Your task to perform on an android device: turn on data saver in the chrome app Image 0: 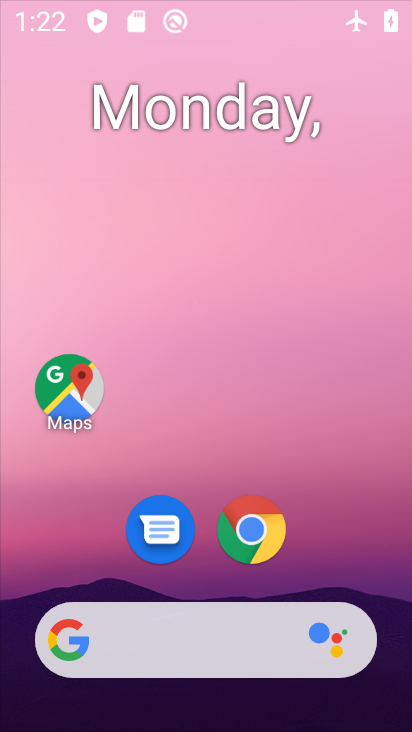
Step 0: click (329, 91)
Your task to perform on an android device: turn on data saver in the chrome app Image 1: 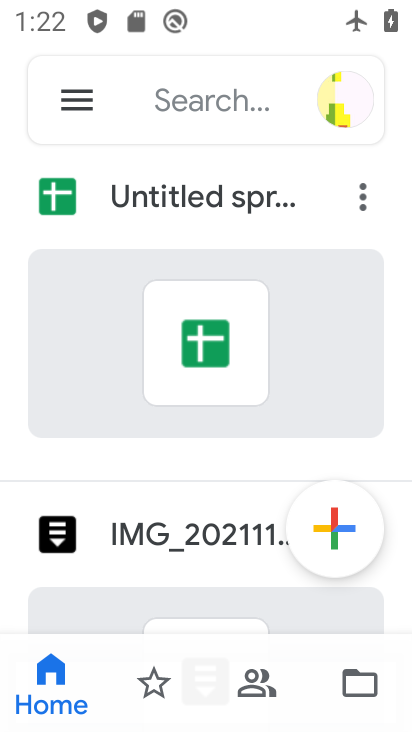
Step 1: press home button
Your task to perform on an android device: turn on data saver in the chrome app Image 2: 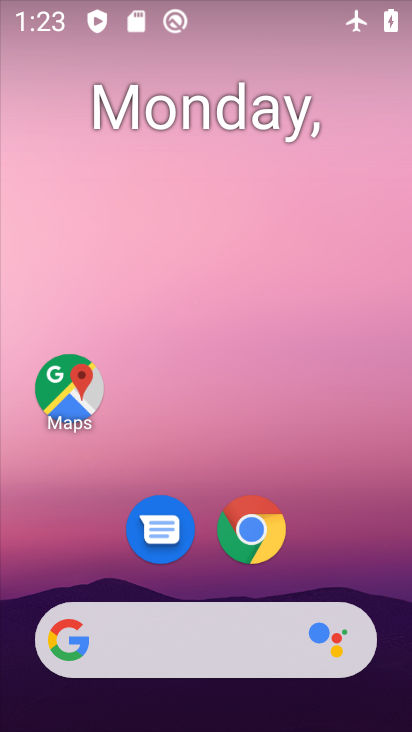
Step 2: drag from (369, 448) to (355, 106)
Your task to perform on an android device: turn on data saver in the chrome app Image 3: 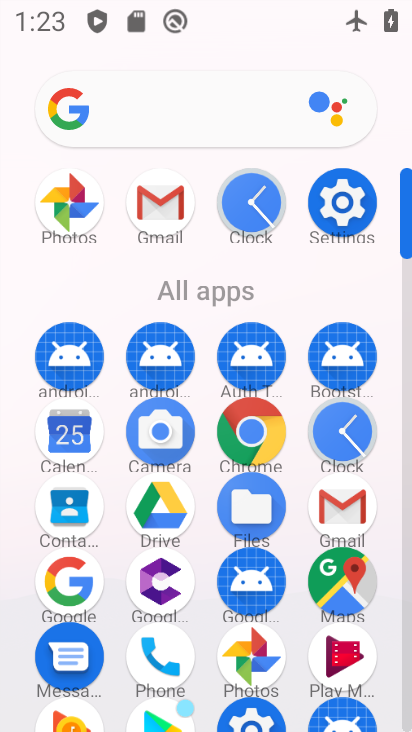
Step 3: click (264, 434)
Your task to perform on an android device: turn on data saver in the chrome app Image 4: 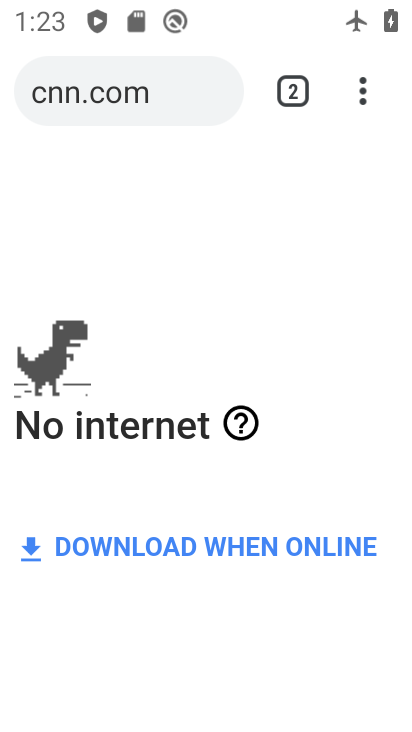
Step 4: drag from (358, 101) to (171, 561)
Your task to perform on an android device: turn on data saver in the chrome app Image 5: 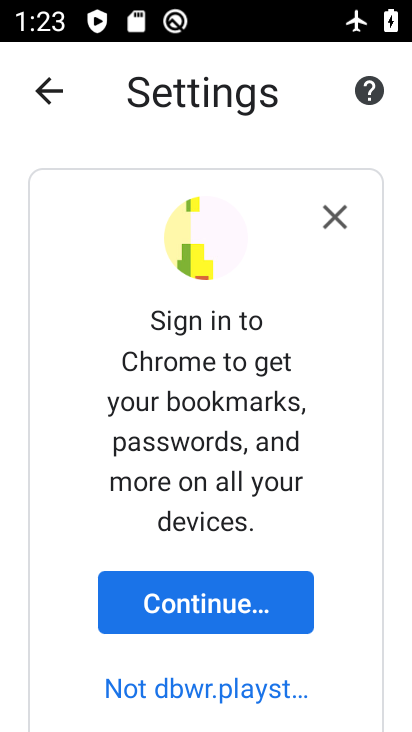
Step 5: click (222, 599)
Your task to perform on an android device: turn on data saver in the chrome app Image 6: 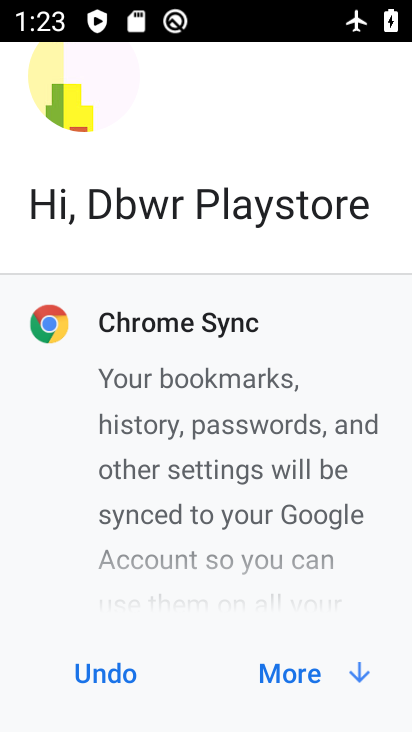
Step 6: click (304, 663)
Your task to perform on an android device: turn on data saver in the chrome app Image 7: 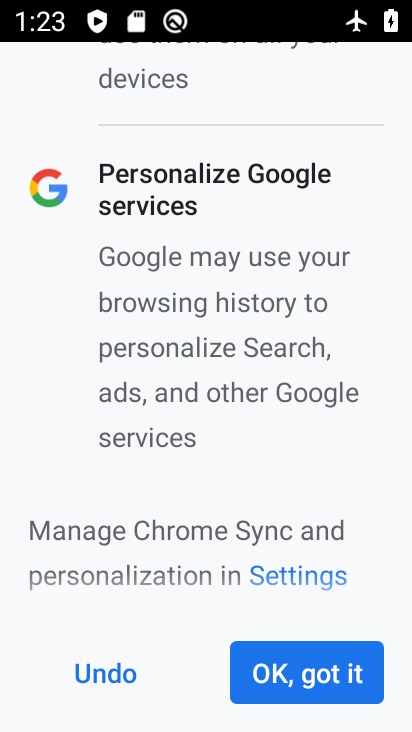
Step 7: click (303, 654)
Your task to perform on an android device: turn on data saver in the chrome app Image 8: 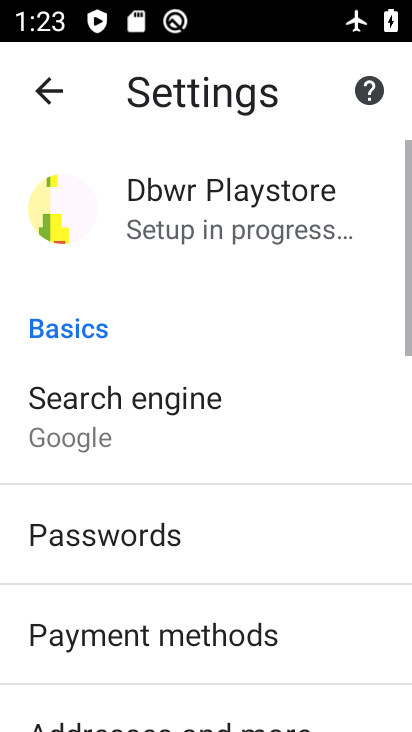
Step 8: drag from (293, 650) to (297, 293)
Your task to perform on an android device: turn on data saver in the chrome app Image 9: 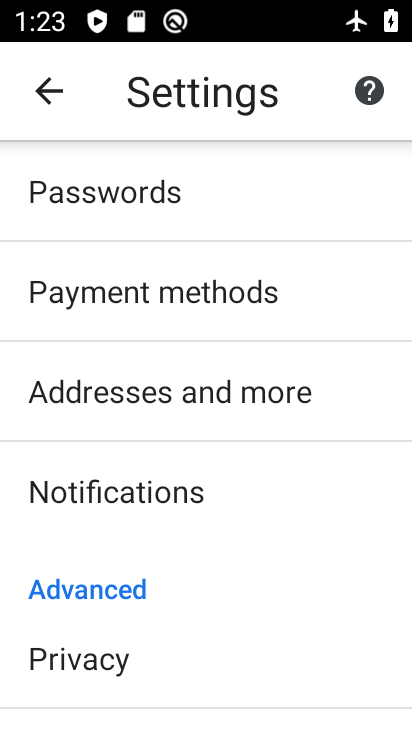
Step 9: drag from (231, 613) to (322, 160)
Your task to perform on an android device: turn on data saver in the chrome app Image 10: 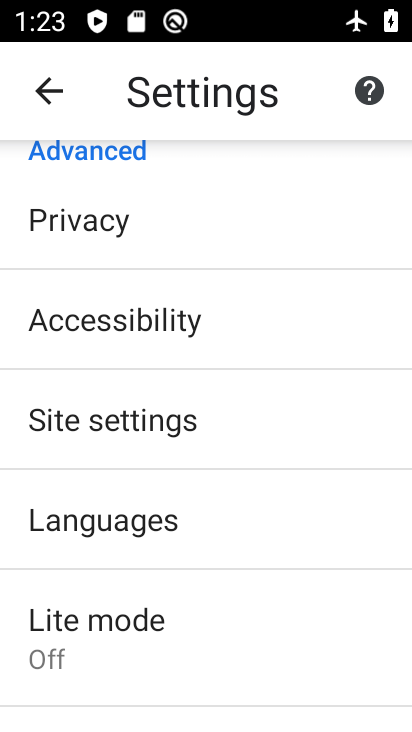
Step 10: drag from (213, 539) to (279, 205)
Your task to perform on an android device: turn on data saver in the chrome app Image 11: 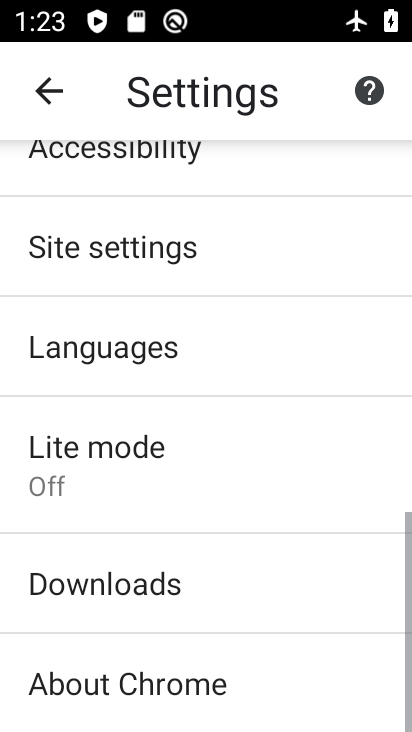
Step 11: click (116, 455)
Your task to perform on an android device: turn on data saver in the chrome app Image 12: 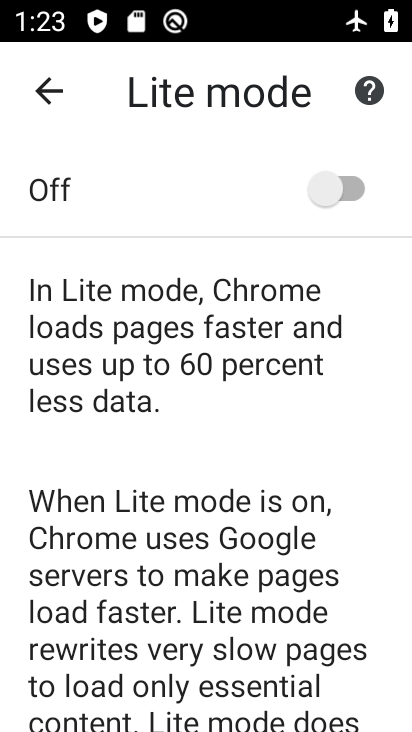
Step 12: click (327, 188)
Your task to perform on an android device: turn on data saver in the chrome app Image 13: 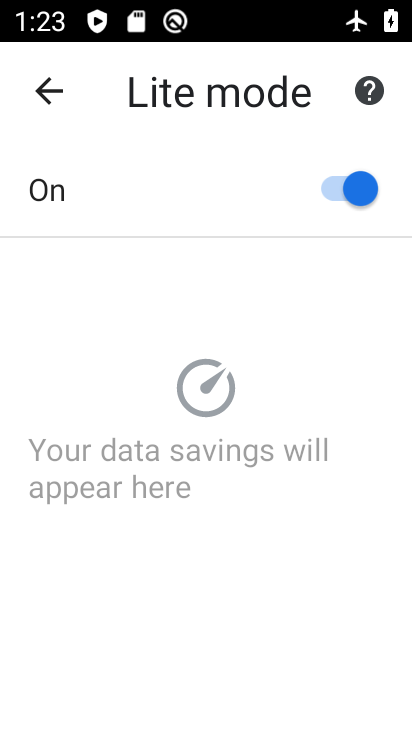
Step 13: task complete